Your task to perform on an android device: What is the recent news? Image 0: 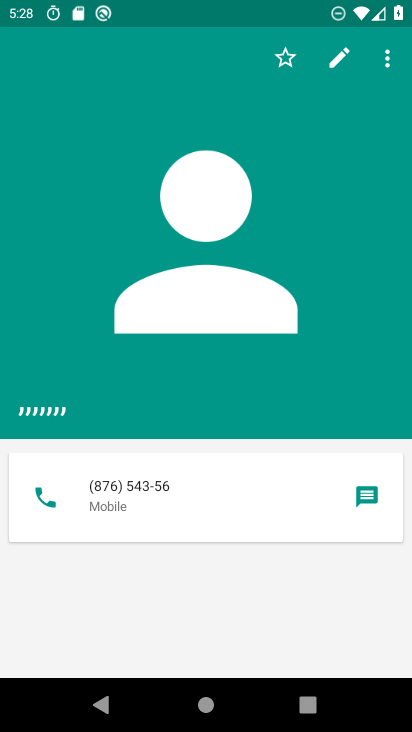
Step 0: press home button
Your task to perform on an android device: What is the recent news? Image 1: 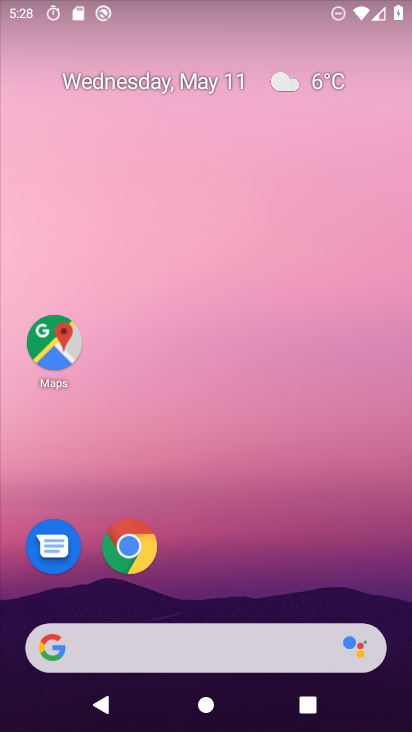
Step 1: drag from (214, 619) to (231, 135)
Your task to perform on an android device: What is the recent news? Image 2: 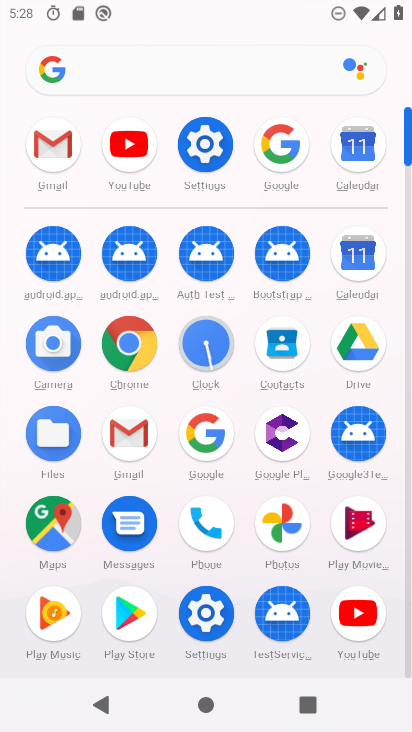
Step 2: click (204, 419)
Your task to perform on an android device: What is the recent news? Image 3: 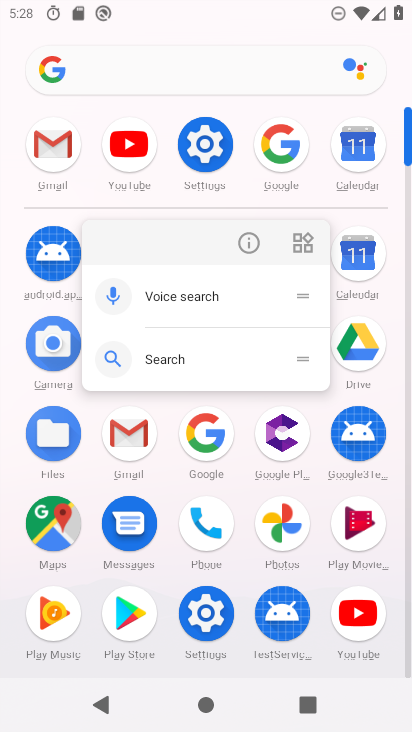
Step 3: click (267, 19)
Your task to perform on an android device: What is the recent news? Image 4: 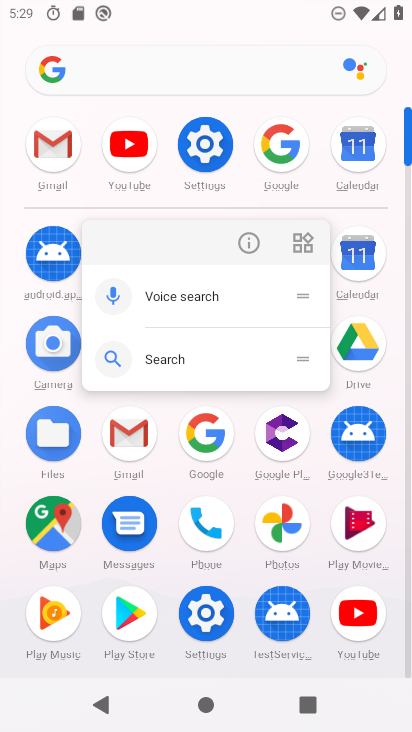
Step 4: click (5, 452)
Your task to perform on an android device: What is the recent news? Image 5: 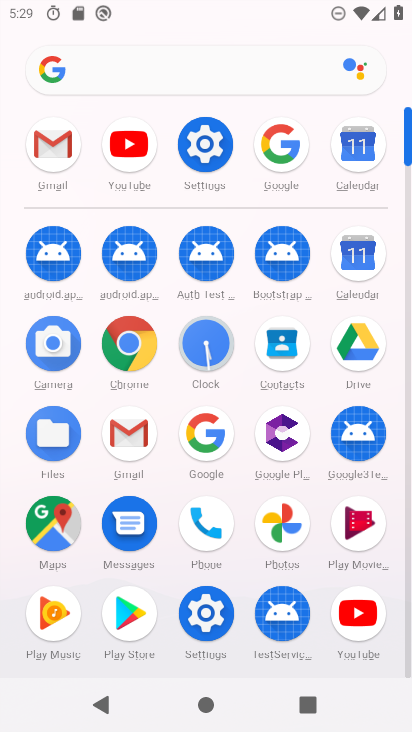
Step 5: click (203, 429)
Your task to perform on an android device: What is the recent news? Image 6: 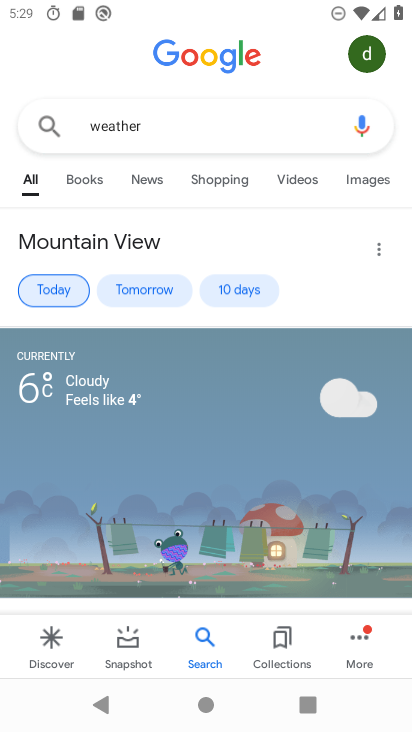
Step 6: click (175, 127)
Your task to perform on an android device: What is the recent news? Image 7: 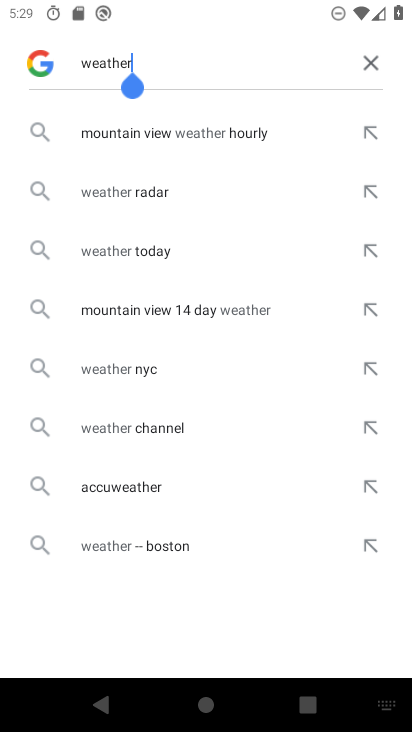
Step 7: click (374, 63)
Your task to perform on an android device: What is the recent news? Image 8: 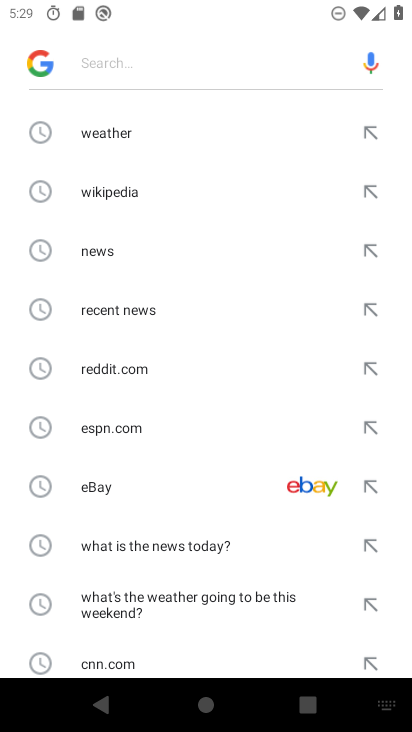
Step 8: click (79, 314)
Your task to perform on an android device: What is the recent news? Image 9: 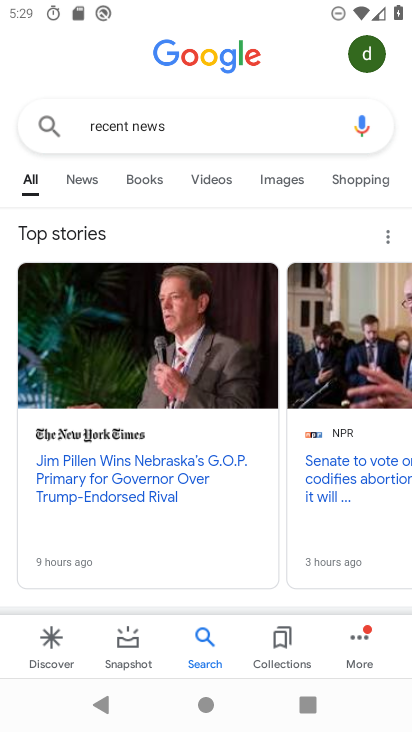
Step 9: task complete